Your task to perform on an android device: What's the news this afternoon? Image 0: 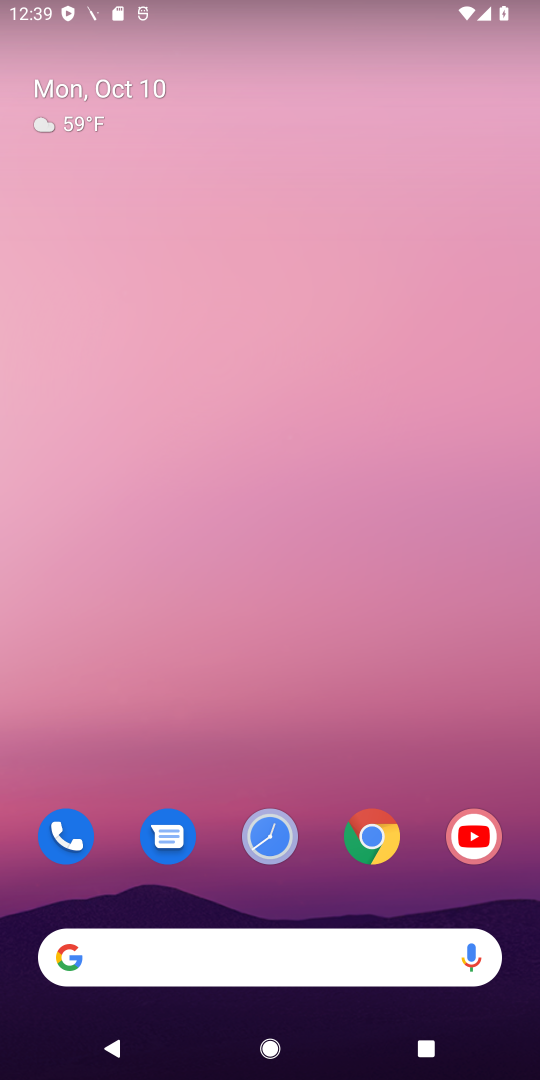
Step 0: click (385, 832)
Your task to perform on an android device: What's the news this afternoon? Image 1: 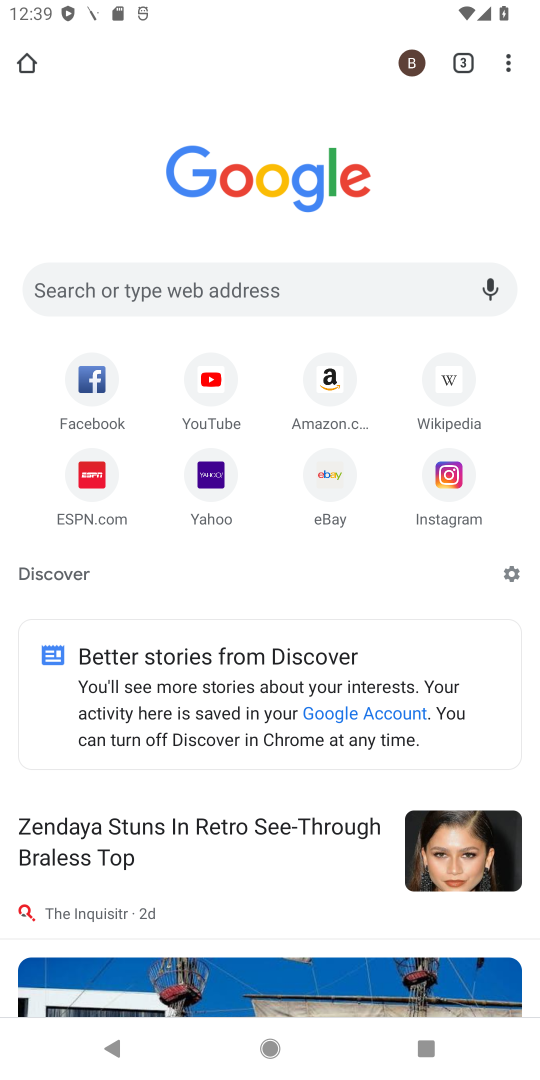
Step 1: click (158, 295)
Your task to perform on an android device: What's the news this afternoon? Image 2: 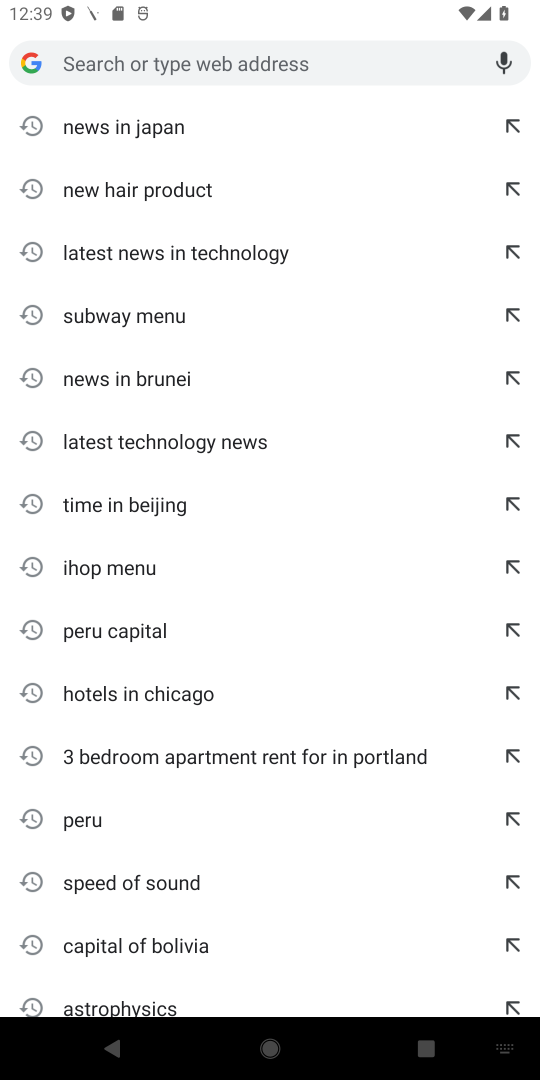
Step 2: type "news this afternoon?"
Your task to perform on an android device: What's the news this afternoon? Image 3: 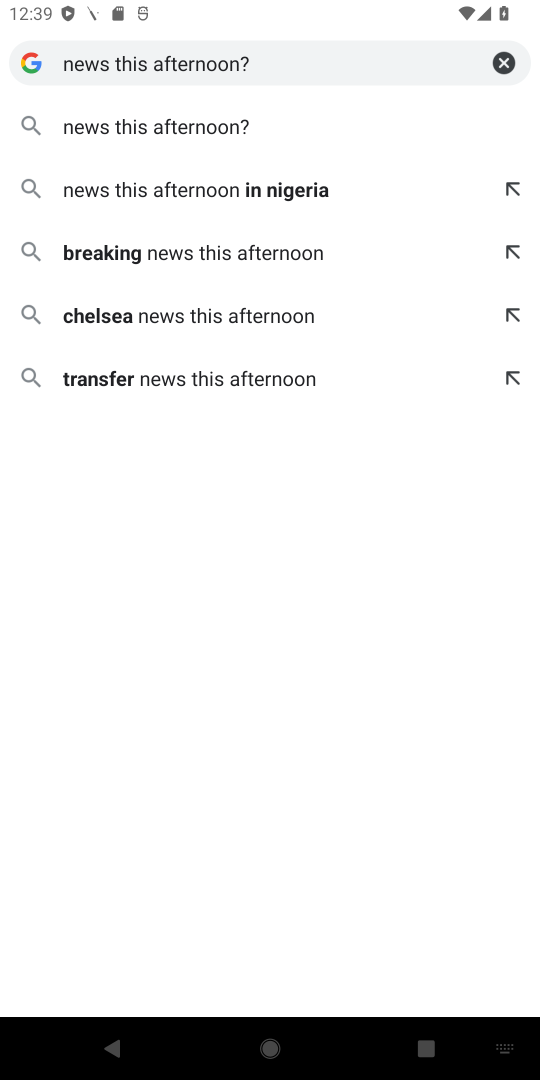
Step 3: click (183, 118)
Your task to perform on an android device: What's the news this afternoon? Image 4: 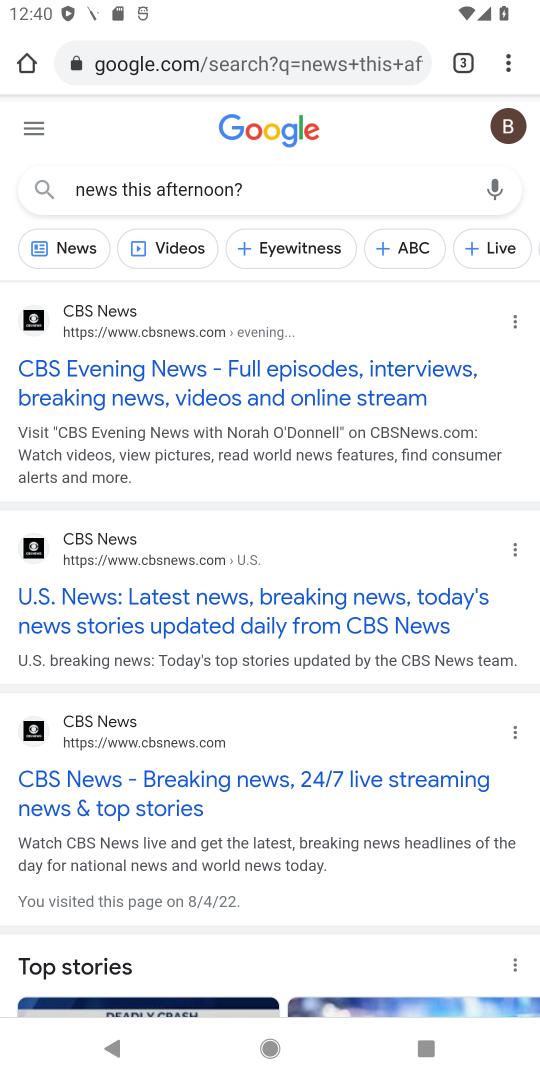
Step 4: click (71, 250)
Your task to perform on an android device: What's the news this afternoon? Image 5: 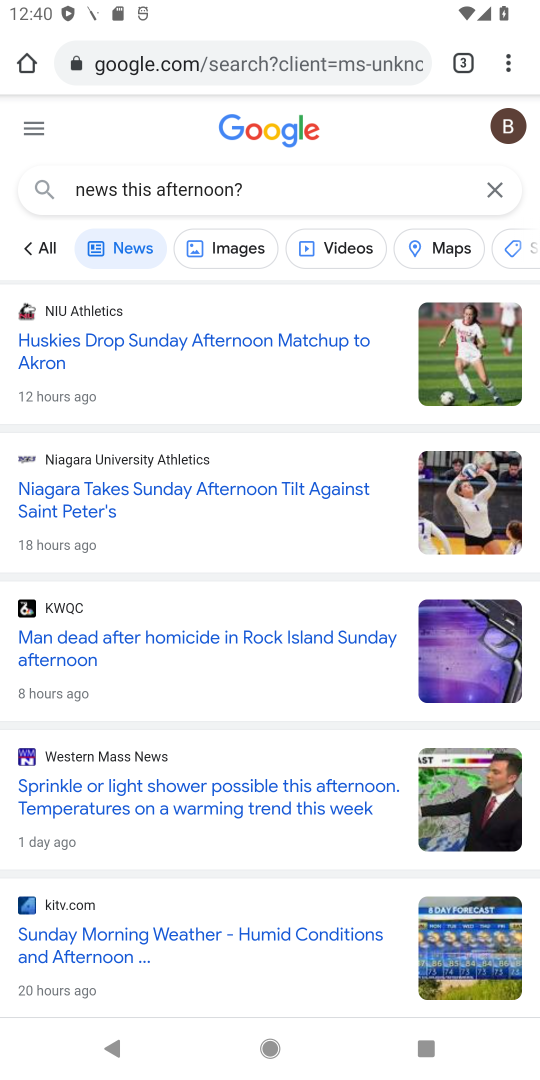
Step 5: task complete